Your task to perform on an android device: open chrome privacy settings Image 0: 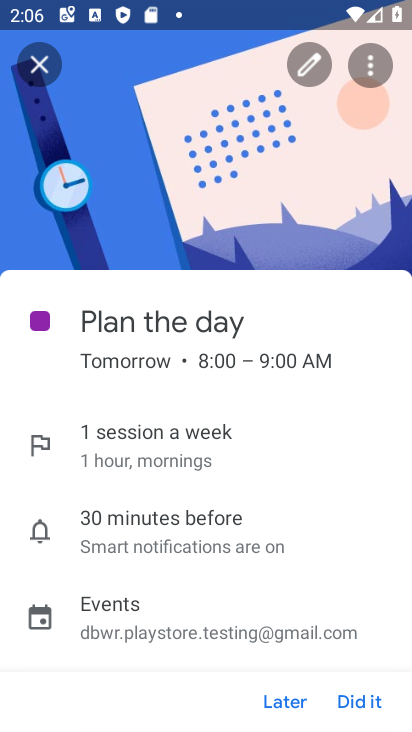
Step 0: press home button
Your task to perform on an android device: open chrome privacy settings Image 1: 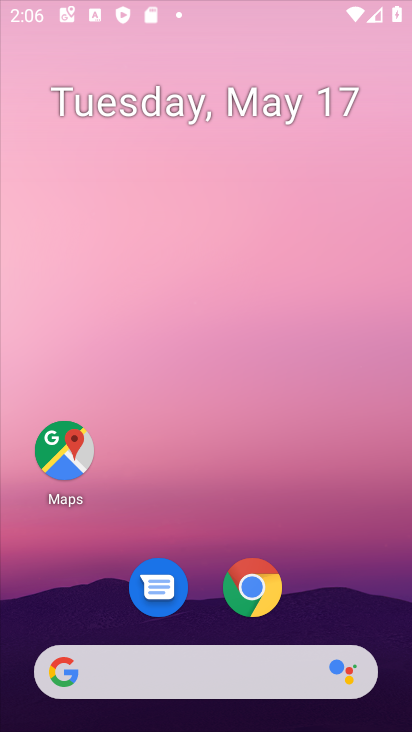
Step 1: drag from (198, 649) to (258, 213)
Your task to perform on an android device: open chrome privacy settings Image 2: 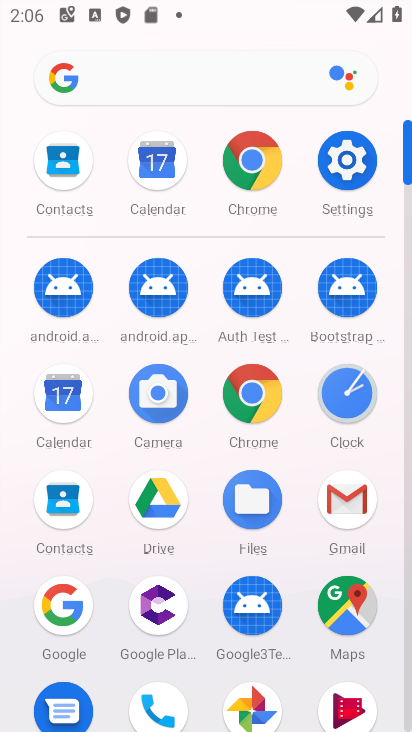
Step 2: click (258, 153)
Your task to perform on an android device: open chrome privacy settings Image 3: 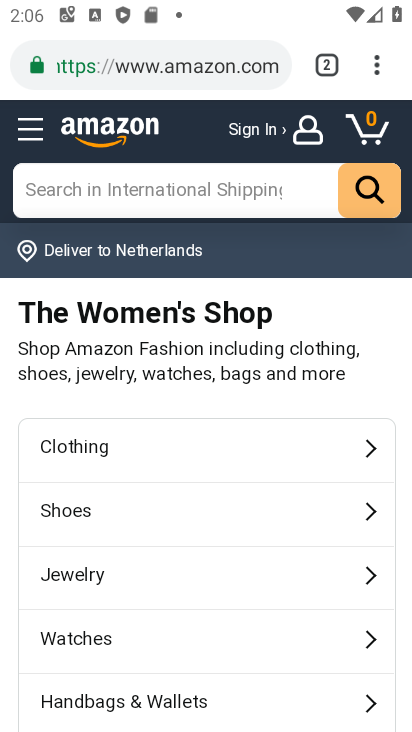
Step 3: click (368, 68)
Your task to perform on an android device: open chrome privacy settings Image 4: 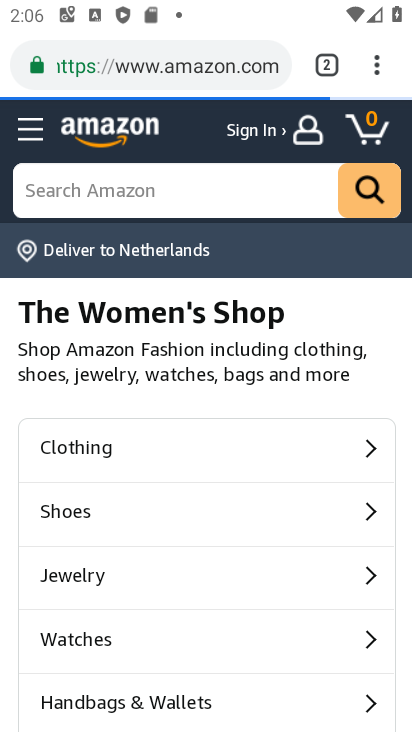
Step 4: click (367, 67)
Your task to perform on an android device: open chrome privacy settings Image 5: 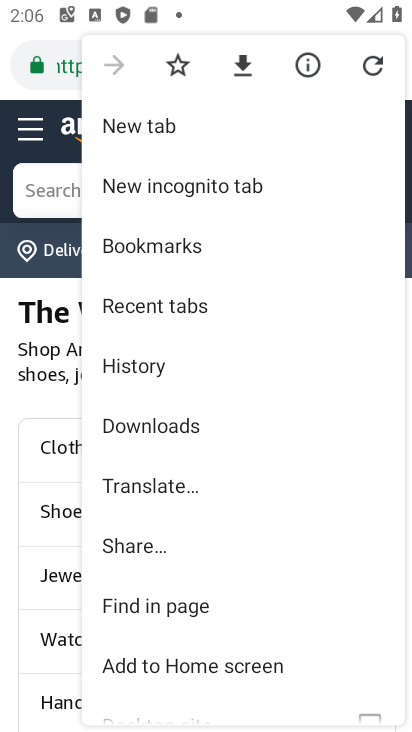
Step 5: drag from (201, 427) to (214, 100)
Your task to perform on an android device: open chrome privacy settings Image 6: 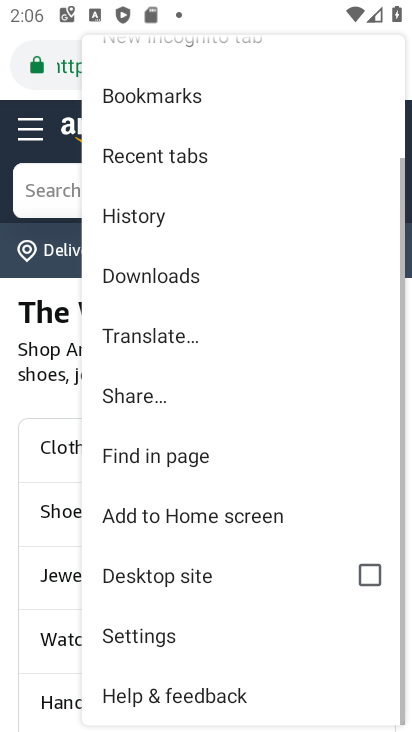
Step 6: click (191, 622)
Your task to perform on an android device: open chrome privacy settings Image 7: 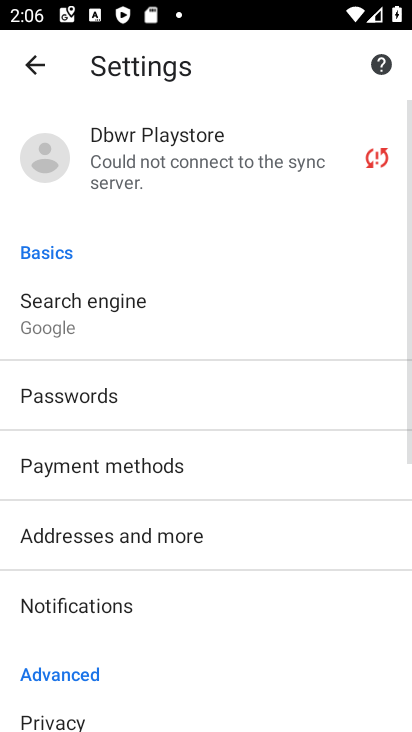
Step 7: drag from (180, 635) to (199, 109)
Your task to perform on an android device: open chrome privacy settings Image 8: 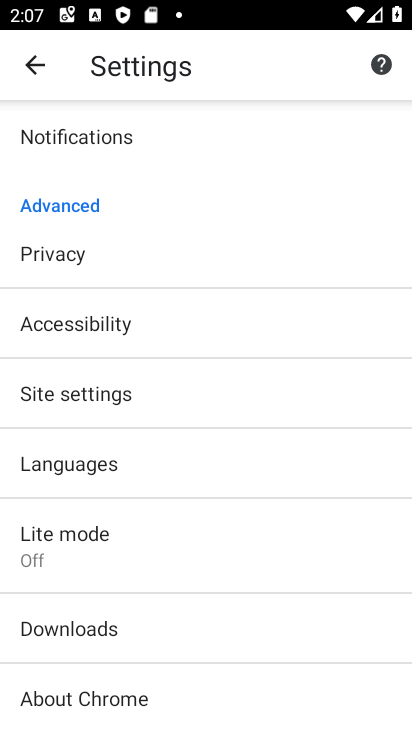
Step 8: click (94, 256)
Your task to perform on an android device: open chrome privacy settings Image 9: 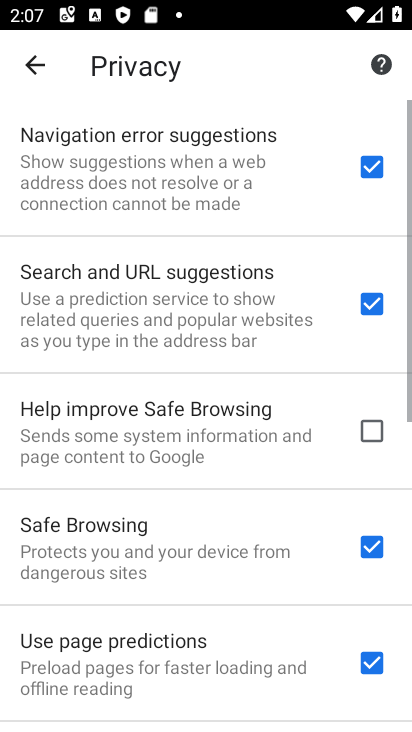
Step 9: task complete